Your task to perform on an android device: Search for a new lawnmower on Lowes.com Image 0: 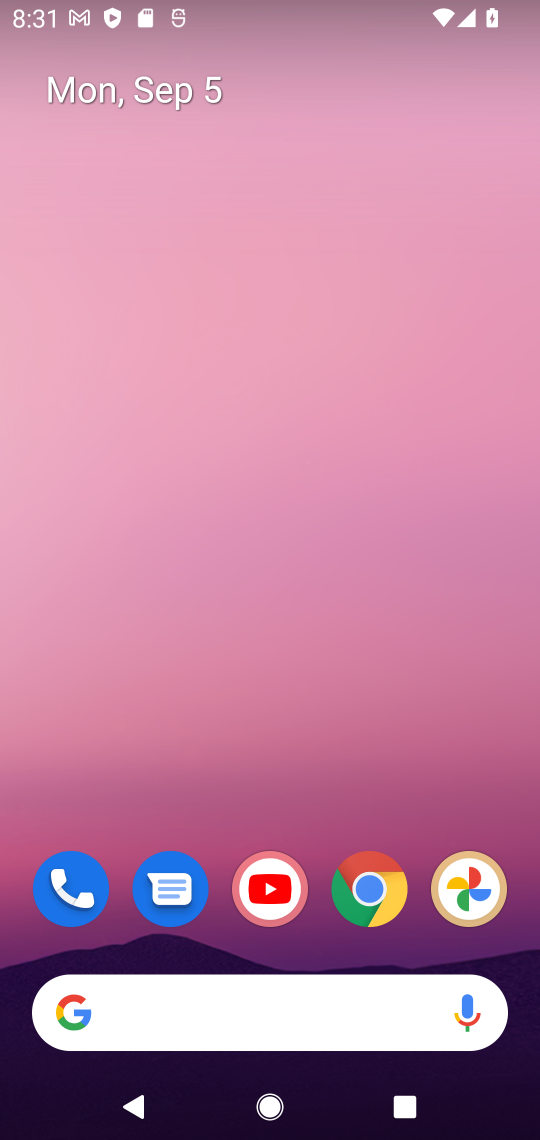
Step 0: click (211, 993)
Your task to perform on an android device: Search for a new lawnmower on Lowes.com Image 1: 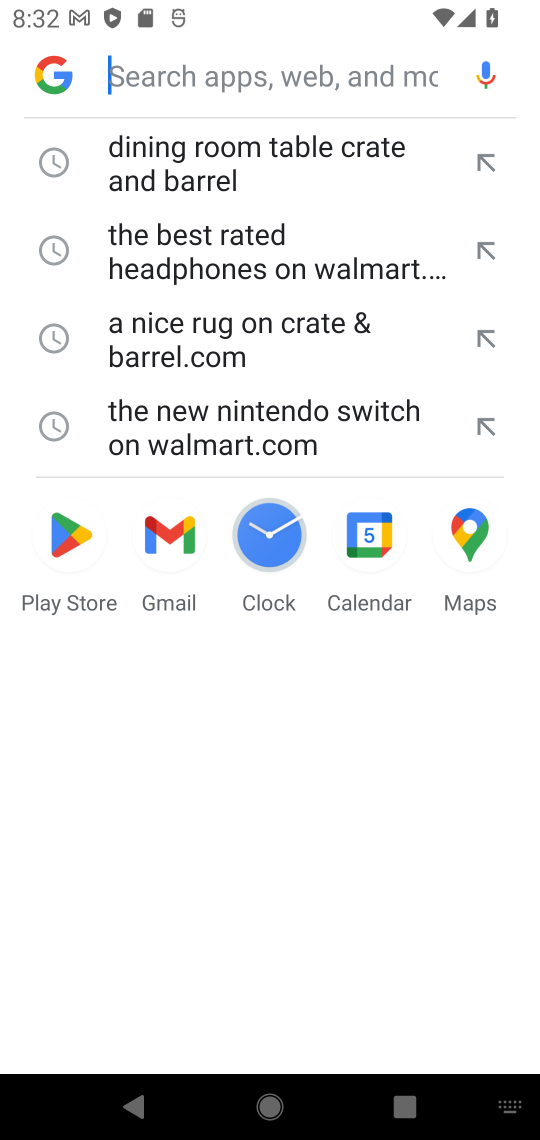
Step 1: type "a new lawnmower on Lowes.com"
Your task to perform on an android device: Search for a new lawnmower on Lowes.com Image 2: 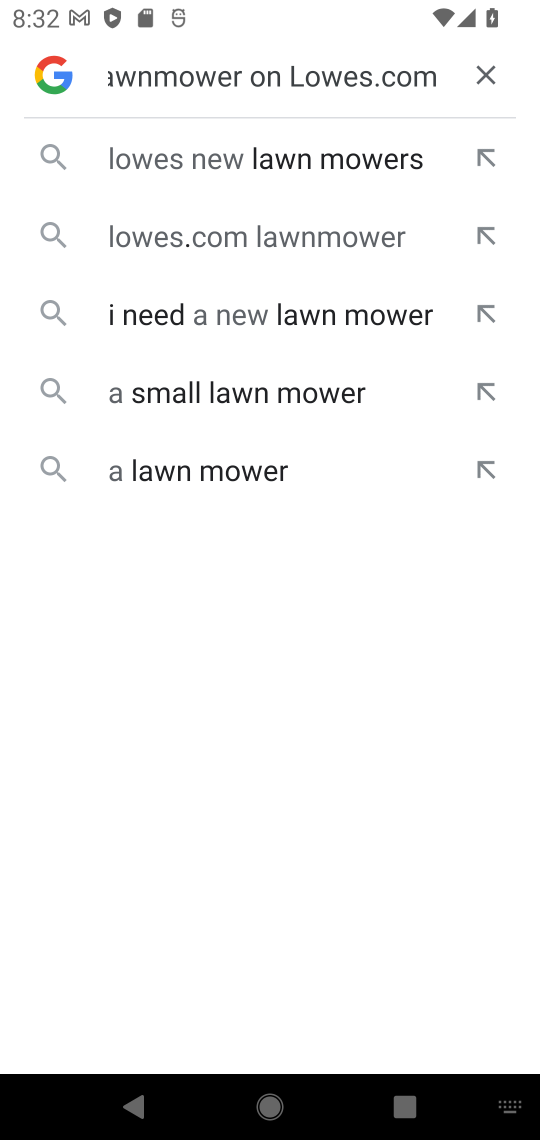
Step 2: click (291, 148)
Your task to perform on an android device: Search for a new lawnmower on Lowes.com Image 3: 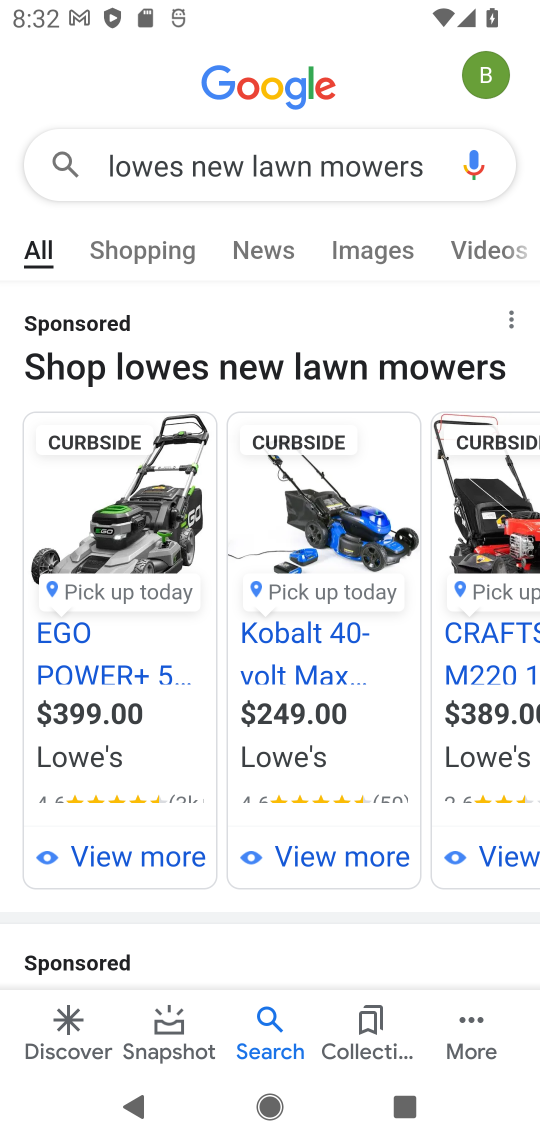
Step 3: task complete